Your task to perform on an android device: toggle notifications settings in the gmail app Image 0: 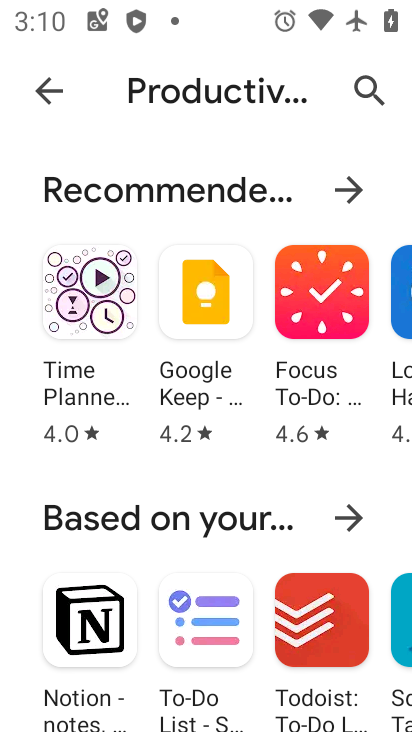
Step 0: press home button
Your task to perform on an android device: toggle notifications settings in the gmail app Image 1: 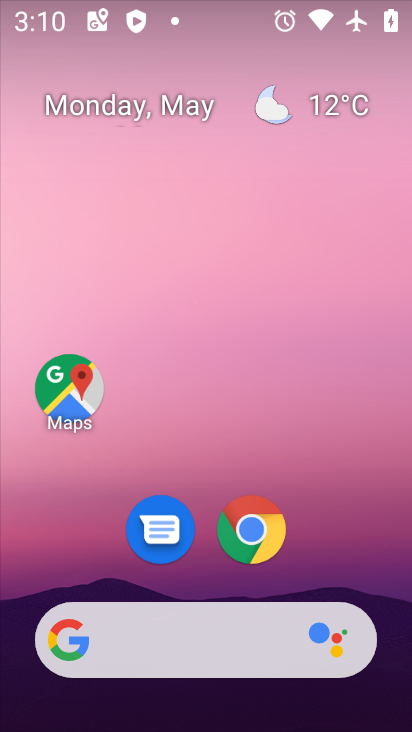
Step 1: drag from (329, 574) to (280, 87)
Your task to perform on an android device: toggle notifications settings in the gmail app Image 2: 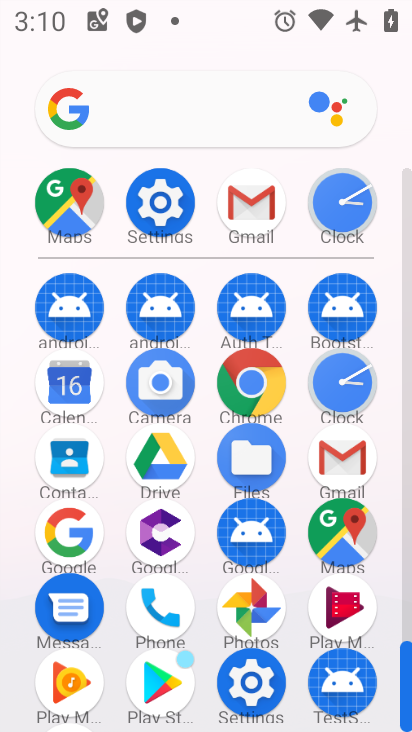
Step 2: click (346, 458)
Your task to perform on an android device: toggle notifications settings in the gmail app Image 3: 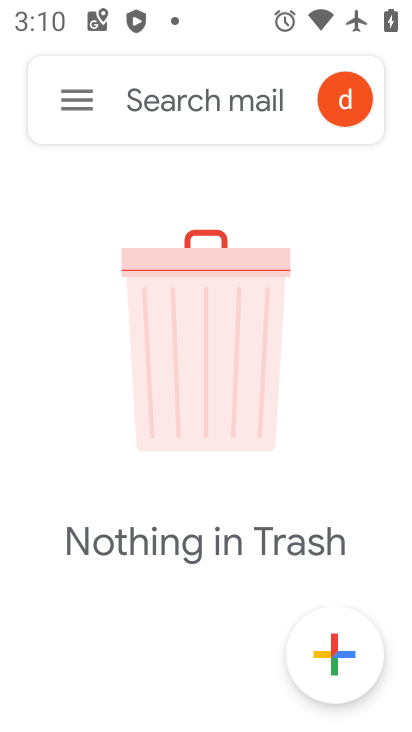
Step 3: click (81, 93)
Your task to perform on an android device: toggle notifications settings in the gmail app Image 4: 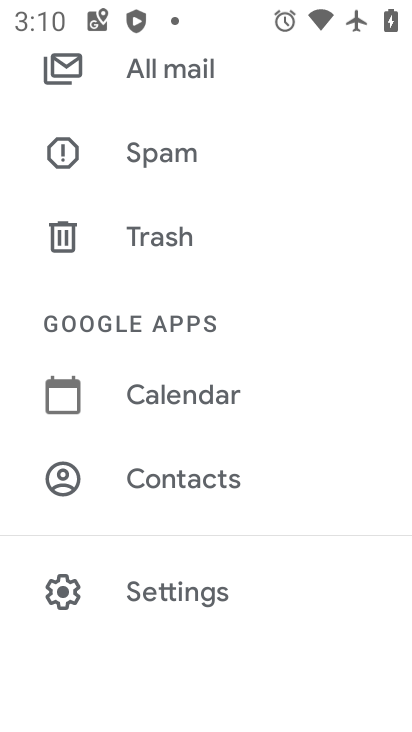
Step 4: click (197, 597)
Your task to perform on an android device: toggle notifications settings in the gmail app Image 5: 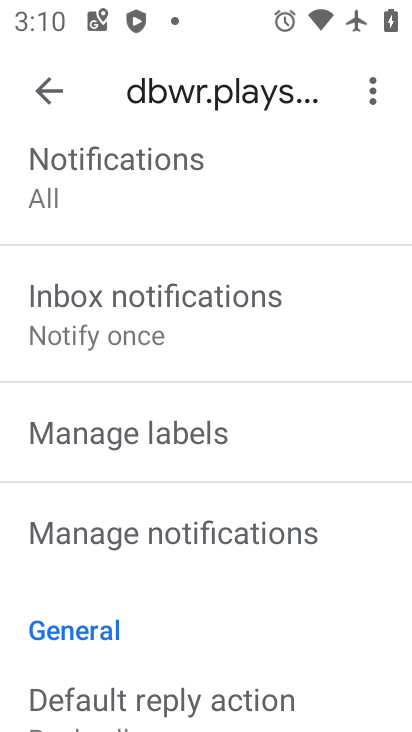
Step 5: drag from (181, 627) to (203, 369)
Your task to perform on an android device: toggle notifications settings in the gmail app Image 6: 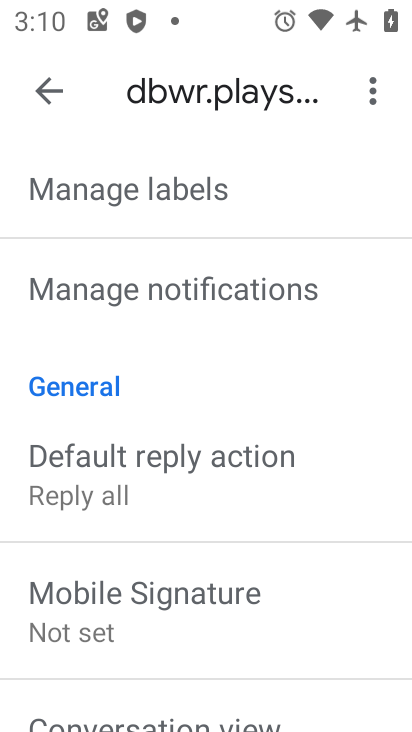
Step 6: drag from (168, 630) to (184, 423)
Your task to perform on an android device: toggle notifications settings in the gmail app Image 7: 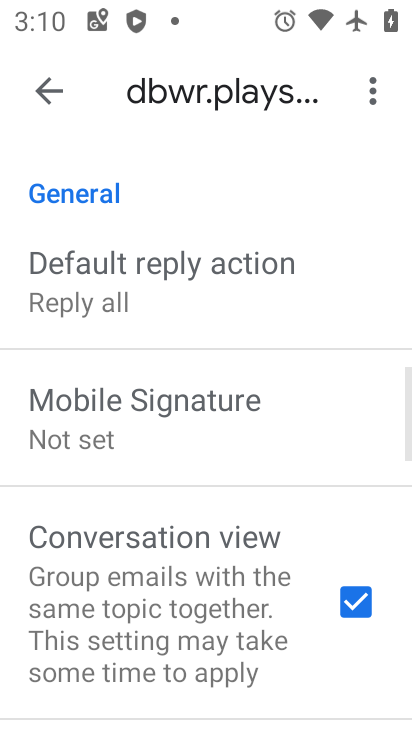
Step 7: drag from (163, 313) to (203, 408)
Your task to perform on an android device: toggle notifications settings in the gmail app Image 8: 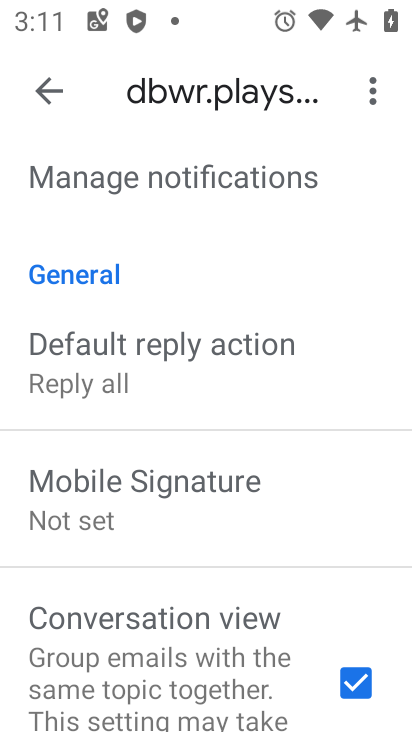
Step 8: click (142, 188)
Your task to perform on an android device: toggle notifications settings in the gmail app Image 9: 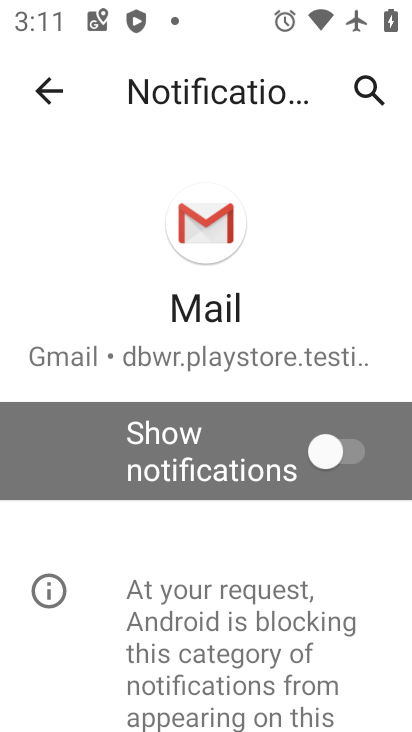
Step 9: click (308, 442)
Your task to perform on an android device: toggle notifications settings in the gmail app Image 10: 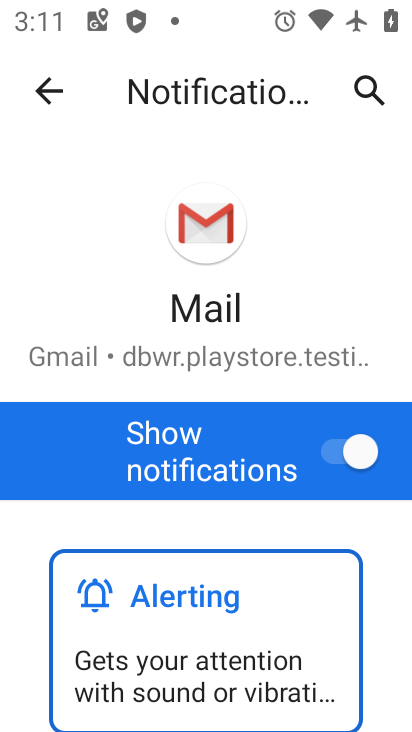
Step 10: task complete